Your task to perform on an android device: What's the weather today? Image 0: 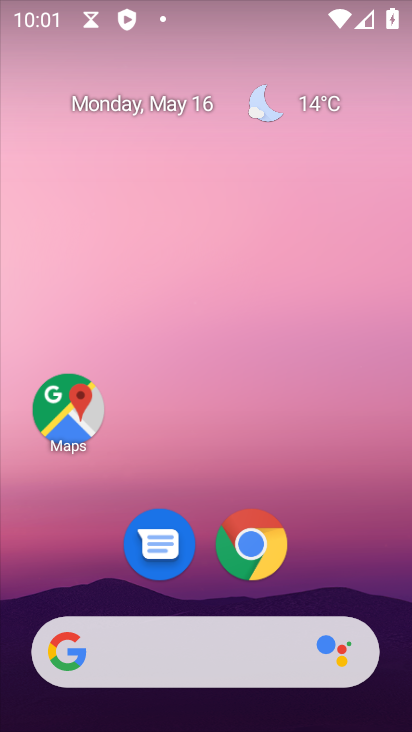
Step 0: click (225, 651)
Your task to perform on an android device: What's the weather today? Image 1: 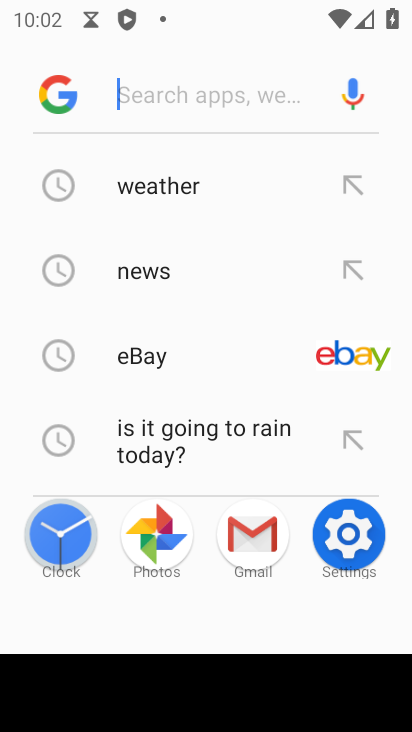
Step 1: type "whats the weather today"
Your task to perform on an android device: What's the weather today? Image 2: 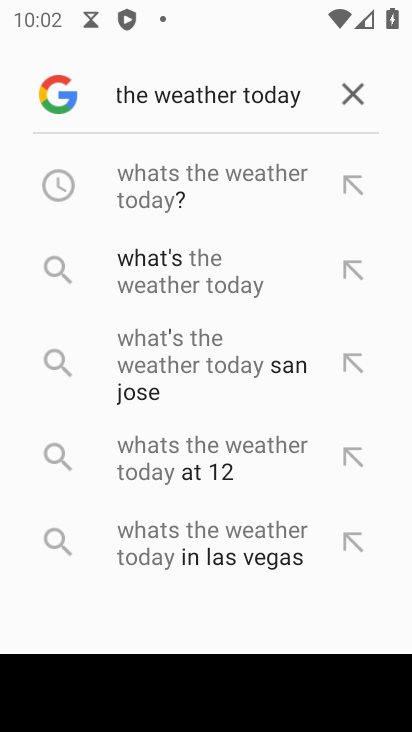
Step 2: click (212, 204)
Your task to perform on an android device: What's the weather today? Image 3: 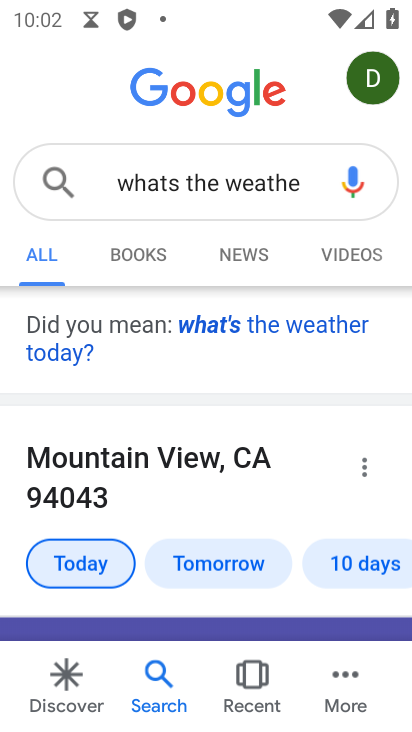
Step 3: task complete